Your task to perform on an android device: Go to Android settings Image 0: 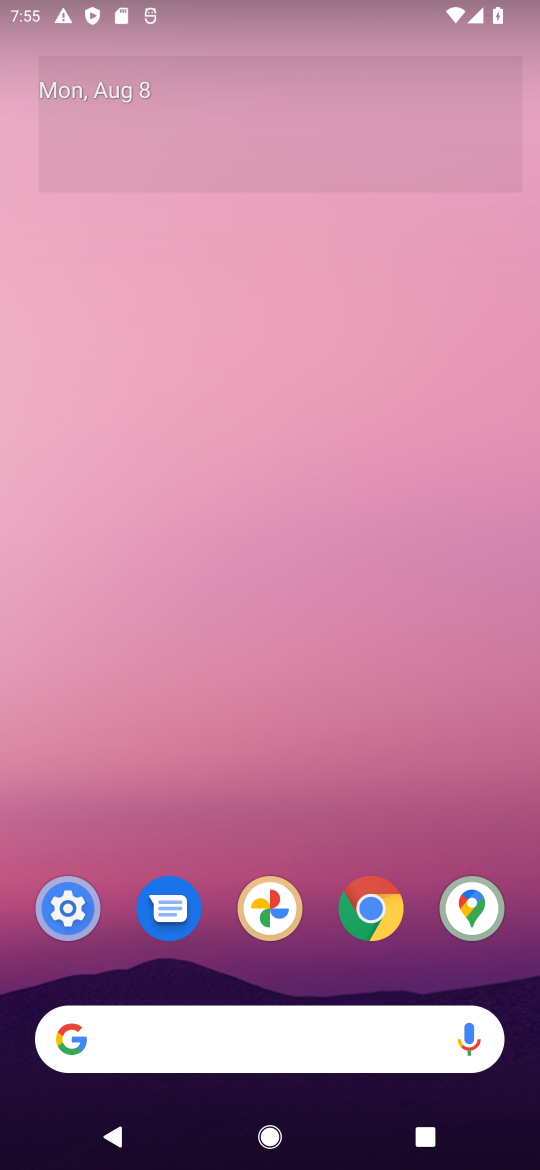
Step 0: click (61, 908)
Your task to perform on an android device: Go to Android settings Image 1: 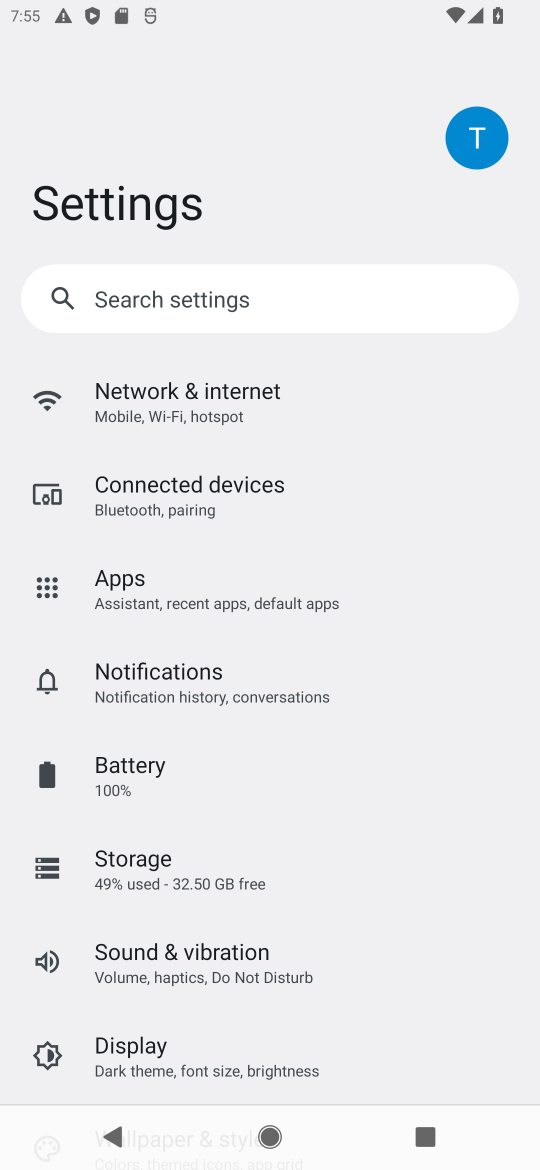
Step 1: task complete